Your task to perform on an android device: uninstall "Fetch Rewards" Image 0: 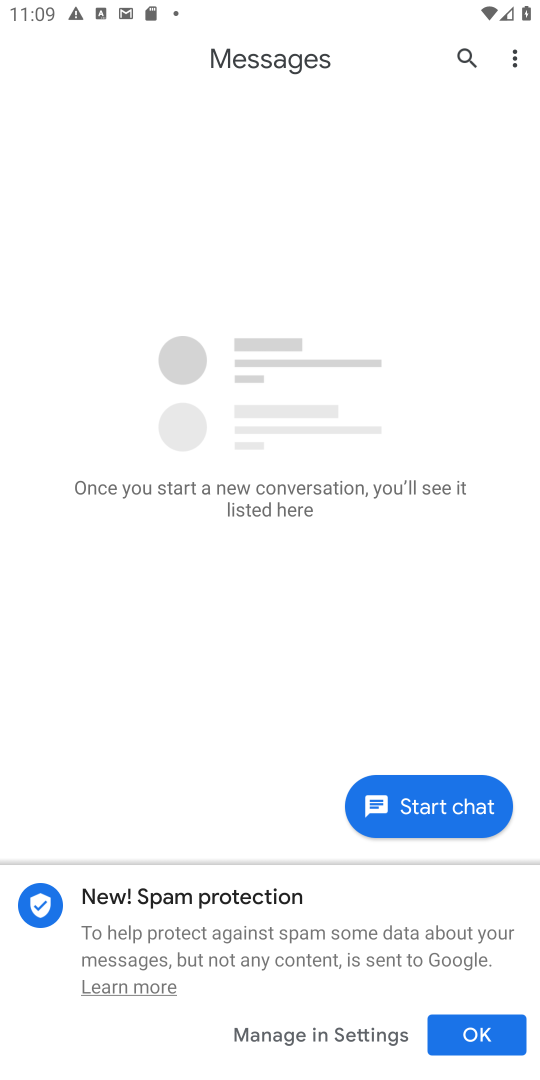
Step 0: press back button
Your task to perform on an android device: uninstall "Fetch Rewards" Image 1: 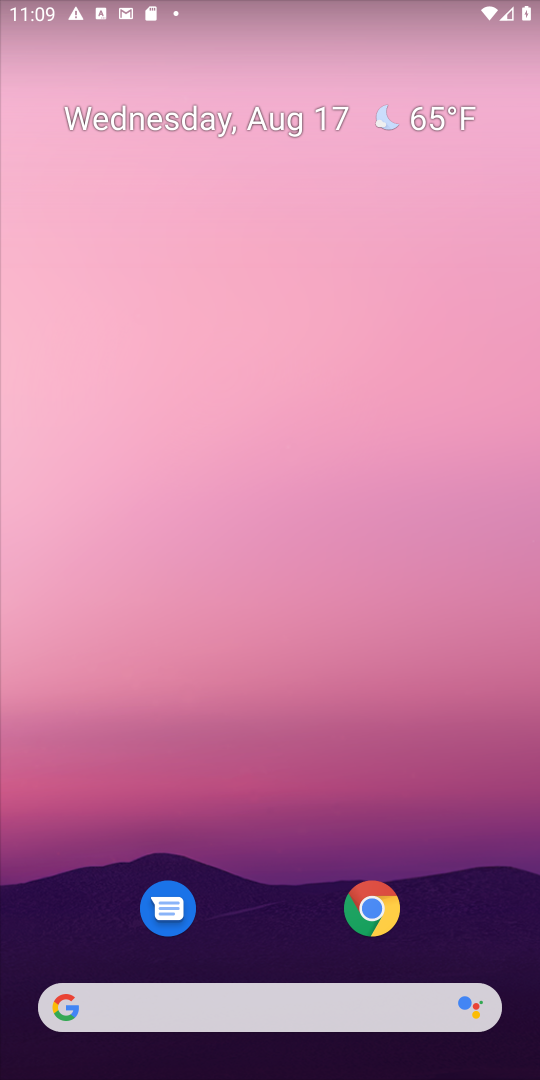
Step 1: drag from (290, 878) to (294, 39)
Your task to perform on an android device: uninstall "Fetch Rewards" Image 2: 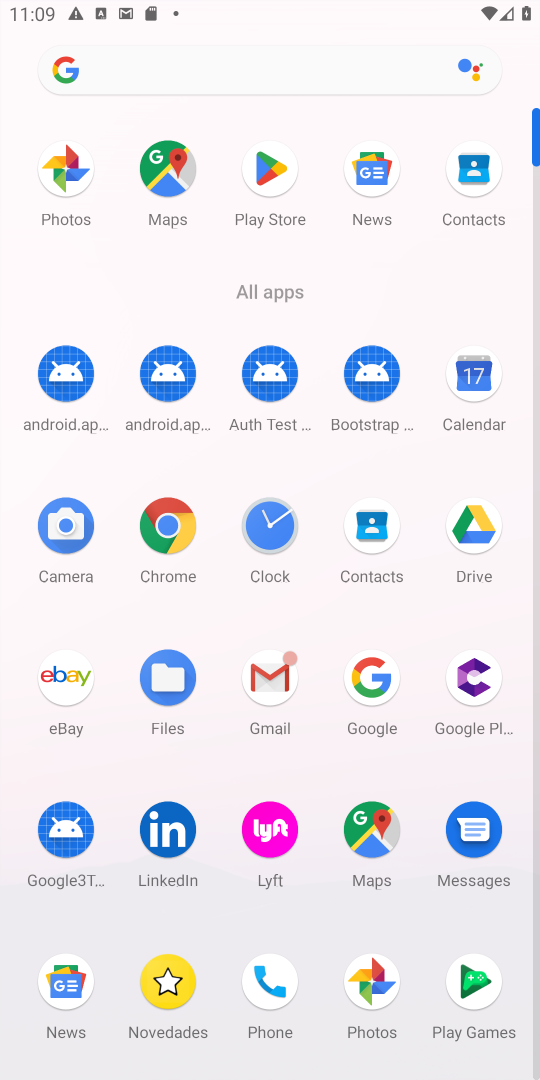
Step 2: click (263, 166)
Your task to perform on an android device: uninstall "Fetch Rewards" Image 3: 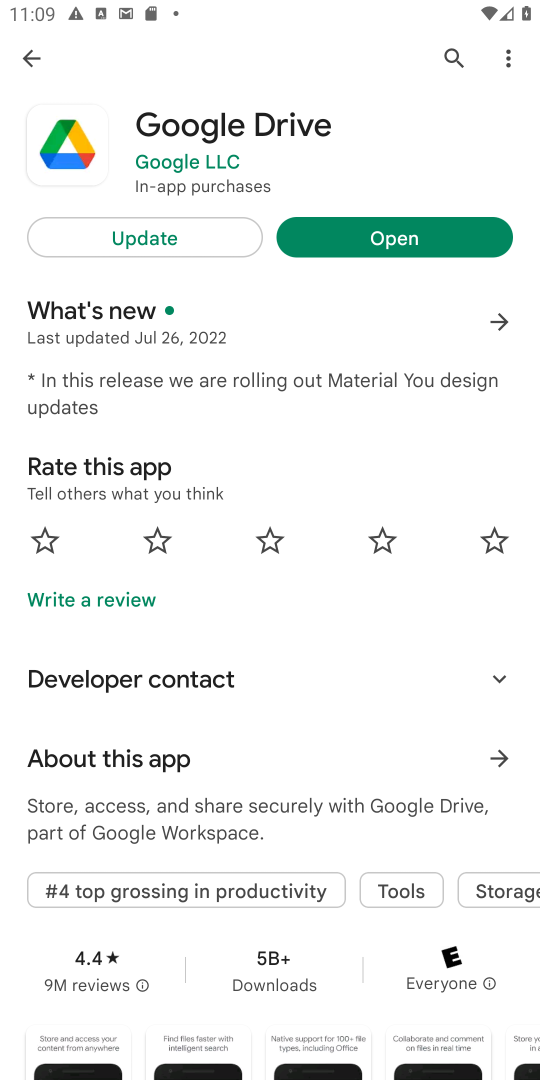
Step 3: click (453, 48)
Your task to perform on an android device: uninstall "Fetch Rewards" Image 4: 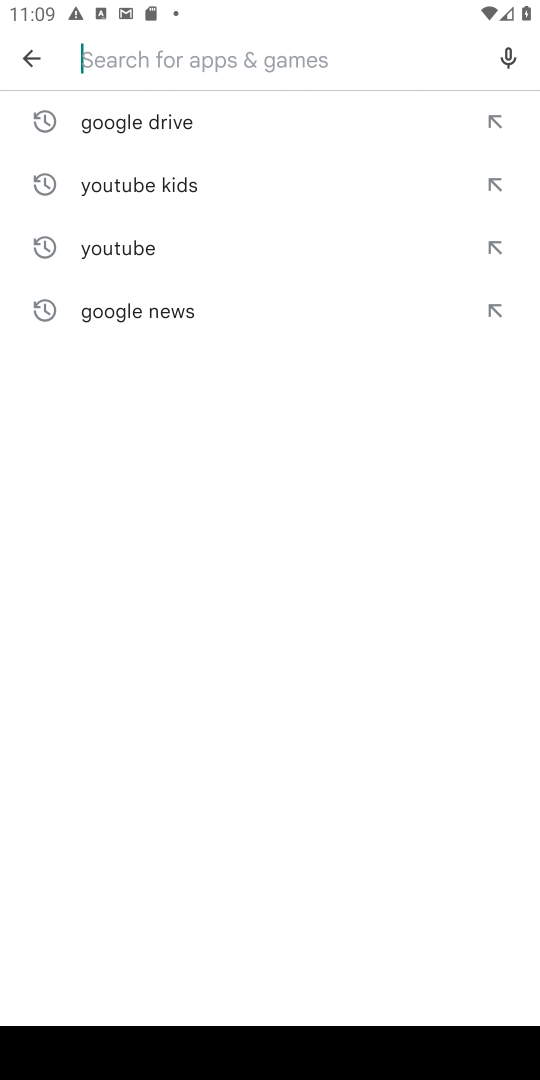
Step 4: click (161, 61)
Your task to perform on an android device: uninstall "Fetch Rewards" Image 5: 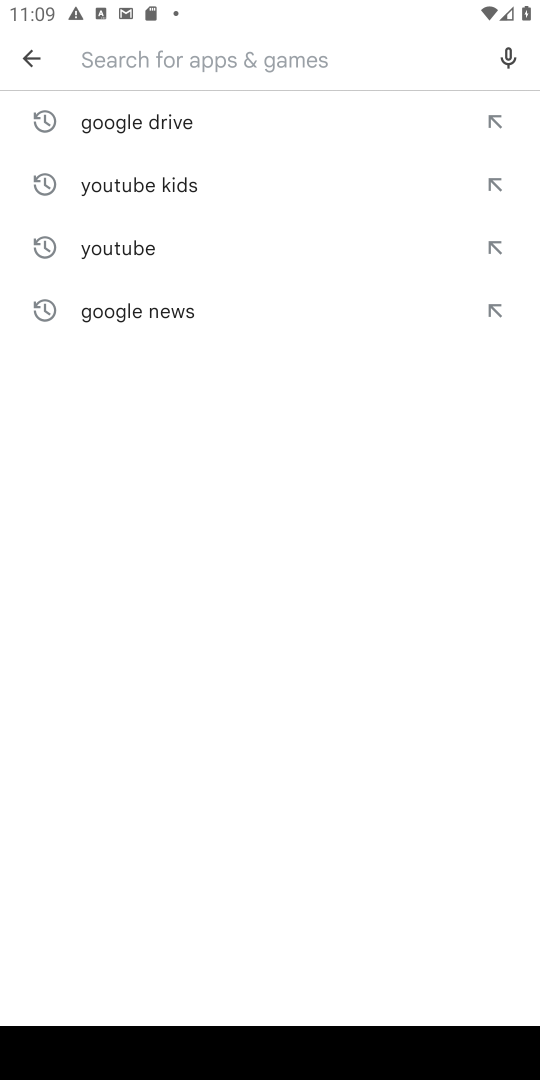
Step 5: type "fetch rewards"
Your task to perform on an android device: uninstall "Fetch Rewards" Image 6: 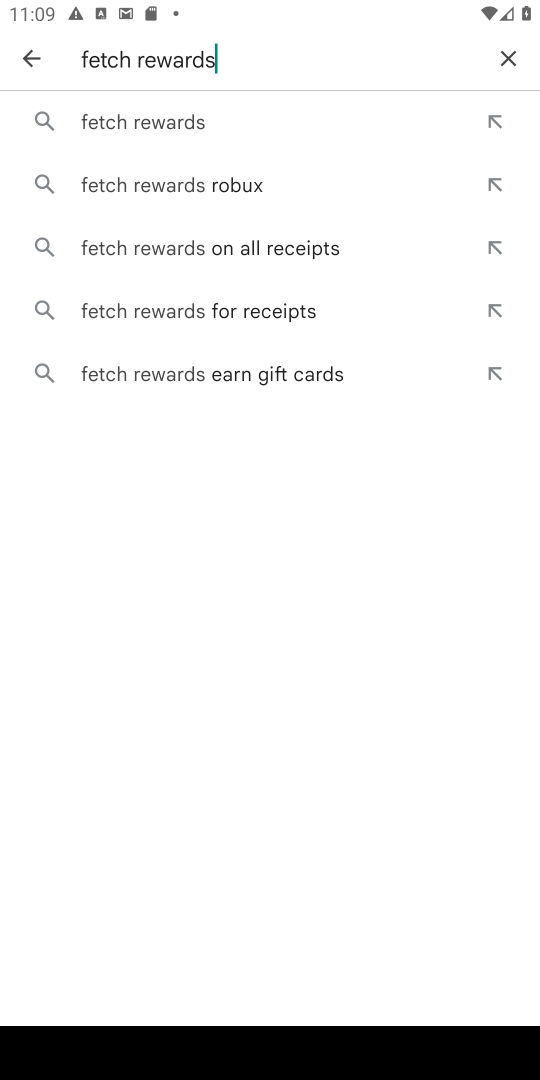
Step 6: click (146, 118)
Your task to perform on an android device: uninstall "Fetch Rewards" Image 7: 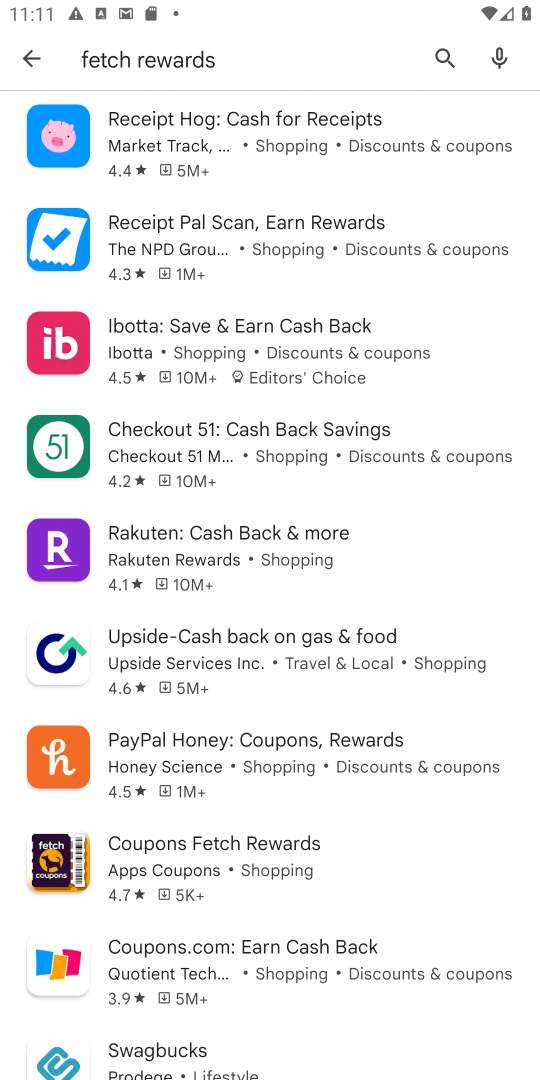
Step 7: task complete